Your task to perform on an android device: Open Google Chrome and open the bookmarks view Image 0: 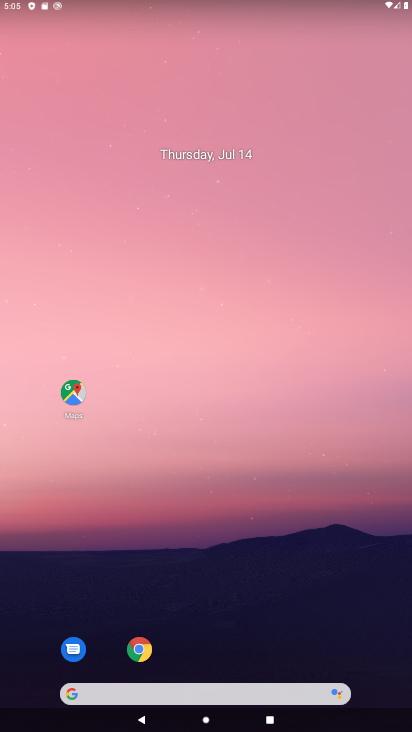
Step 0: click (132, 653)
Your task to perform on an android device: Open Google Chrome and open the bookmarks view Image 1: 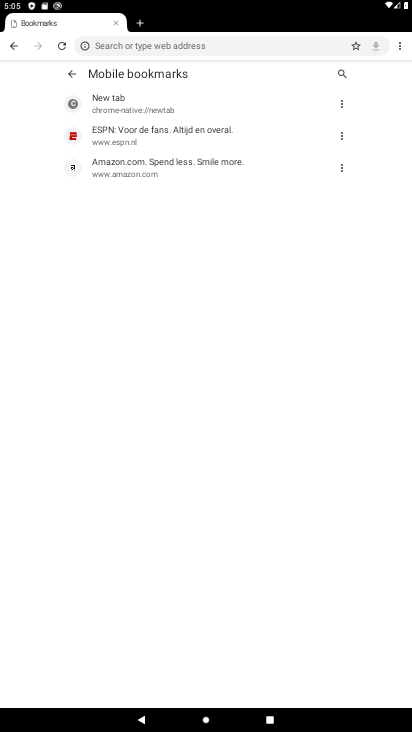
Step 1: task complete